Your task to perform on an android device: turn off picture-in-picture Image 0: 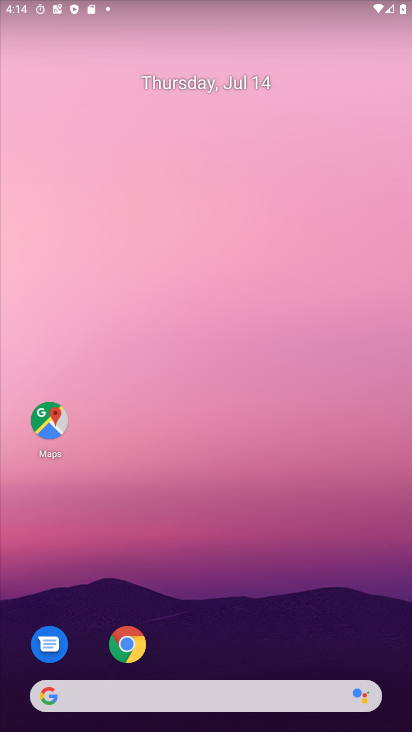
Step 0: drag from (215, 569) to (362, 89)
Your task to perform on an android device: turn off picture-in-picture Image 1: 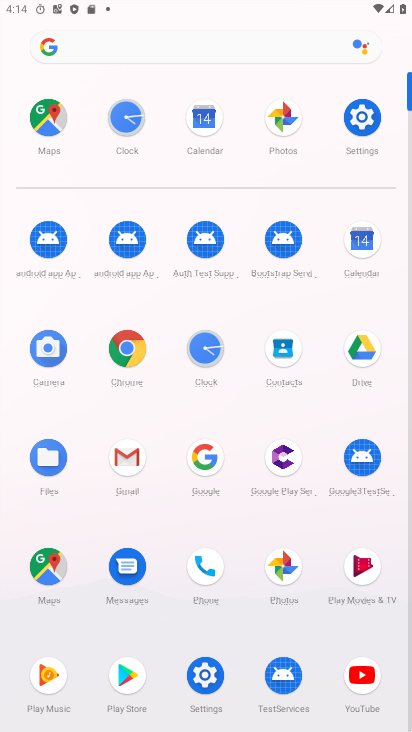
Step 1: click (358, 129)
Your task to perform on an android device: turn off picture-in-picture Image 2: 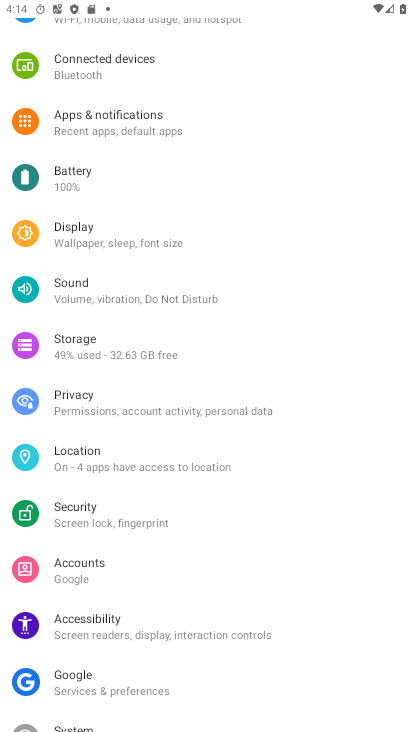
Step 2: drag from (267, 165) to (245, 706)
Your task to perform on an android device: turn off picture-in-picture Image 3: 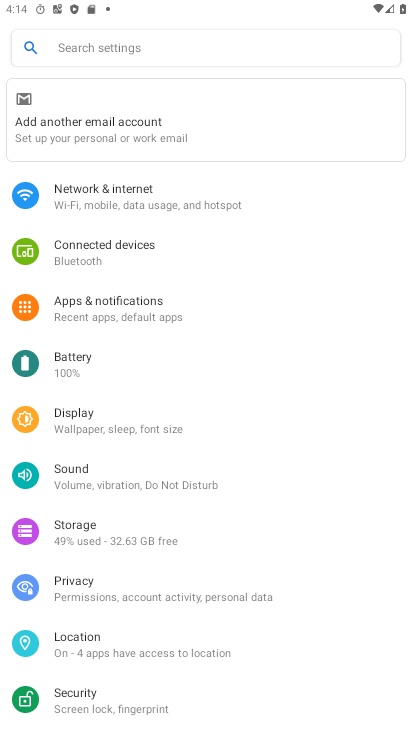
Step 3: click (165, 307)
Your task to perform on an android device: turn off picture-in-picture Image 4: 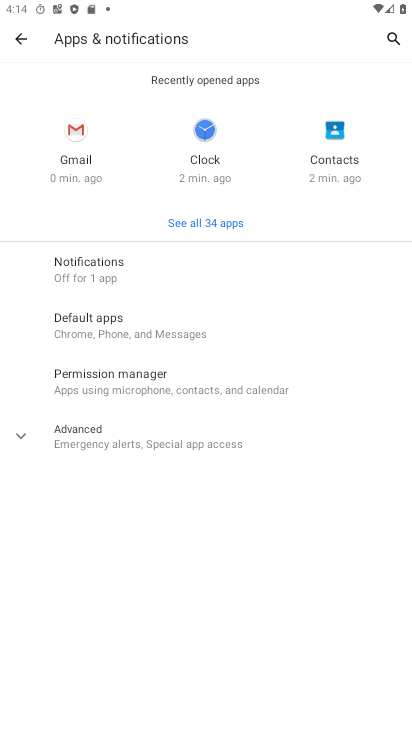
Step 4: click (112, 261)
Your task to perform on an android device: turn off picture-in-picture Image 5: 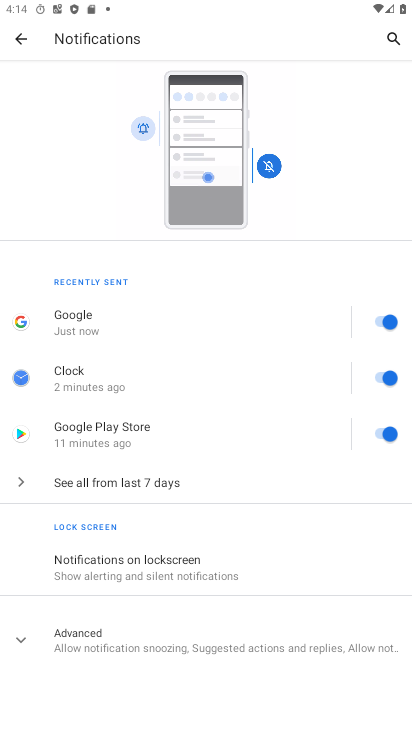
Step 5: drag from (140, 602) to (276, 95)
Your task to perform on an android device: turn off picture-in-picture Image 6: 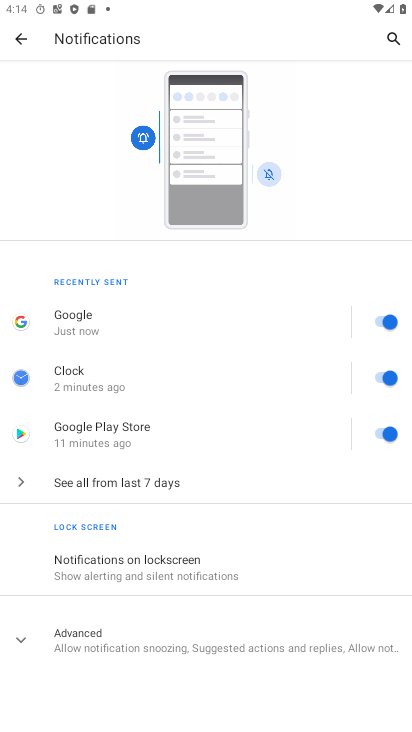
Step 6: click (119, 624)
Your task to perform on an android device: turn off picture-in-picture Image 7: 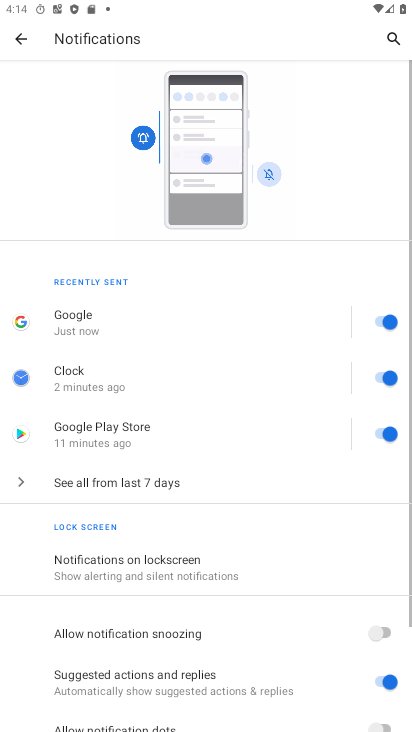
Step 7: drag from (148, 642) to (244, 136)
Your task to perform on an android device: turn off picture-in-picture Image 8: 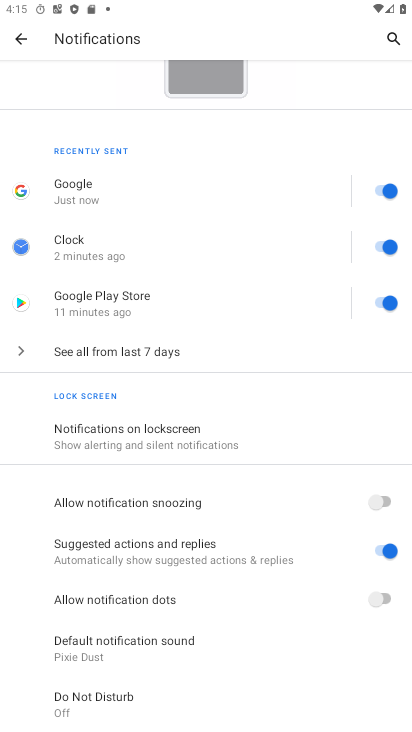
Step 8: click (25, 38)
Your task to perform on an android device: turn off picture-in-picture Image 9: 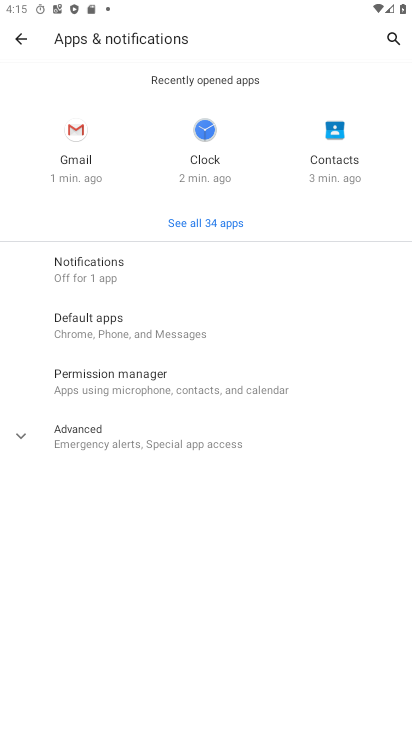
Step 9: click (105, 424)
Your task to perform on an android device: turn off picture-in-picture Image 10: 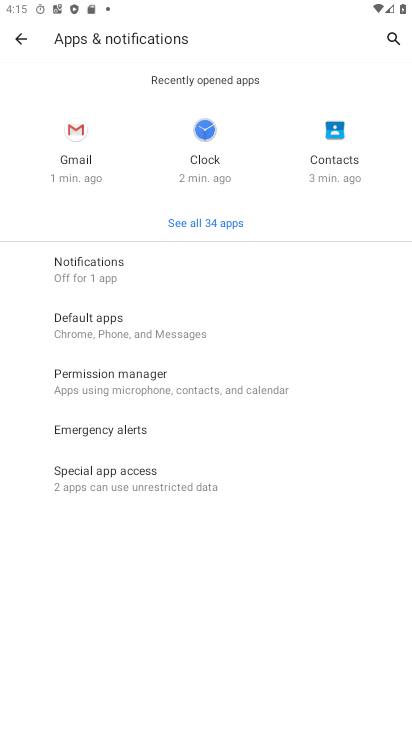
Step 10: click (115, 482)
Your task to perform on an android device: turn off picture-in-picture Image 11: 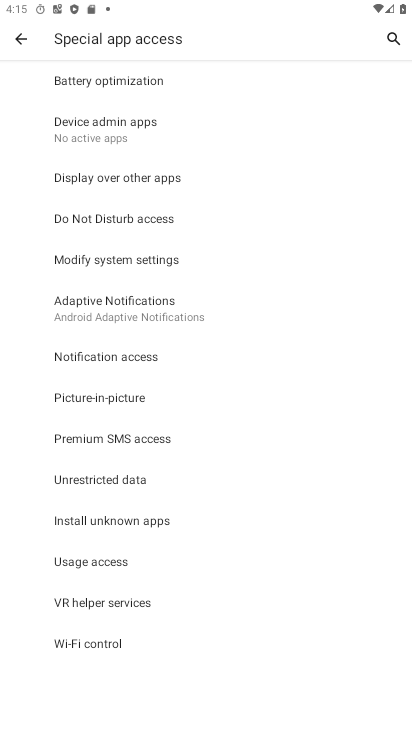
Step 11: click (100, 399)
Your task to perform on an android device: turn off picture-in-picture Image 12: 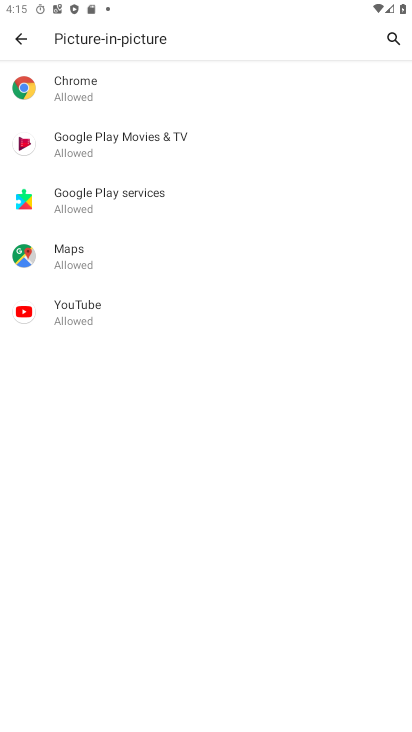
Step 12: click (95, 81)
Your task to perform on an android device: turn off picture-in-picture Image 13: 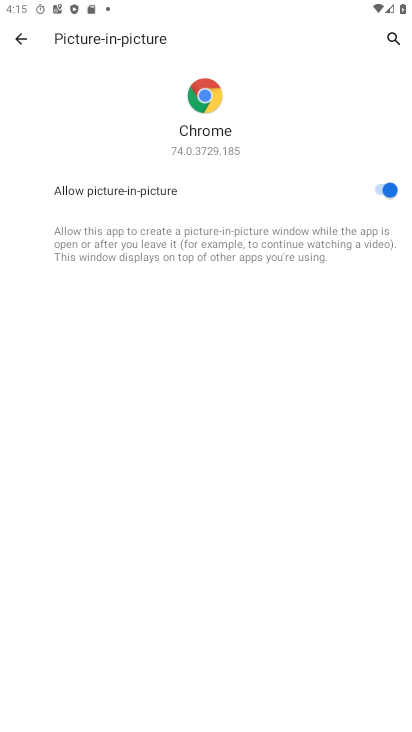
Step 13: click (384, 188)
Your task to perform on an android device: turn off picture-in-picture Image 14: 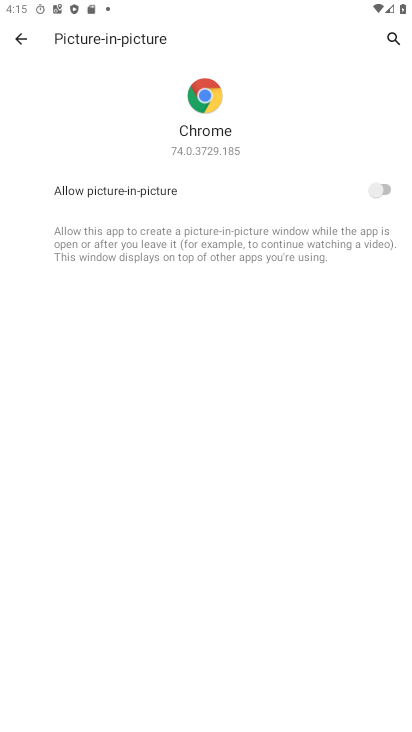
Step 14: task complete